Your task to perform on an android device: Open Google Chrome and open the bookmarks view Image 0: 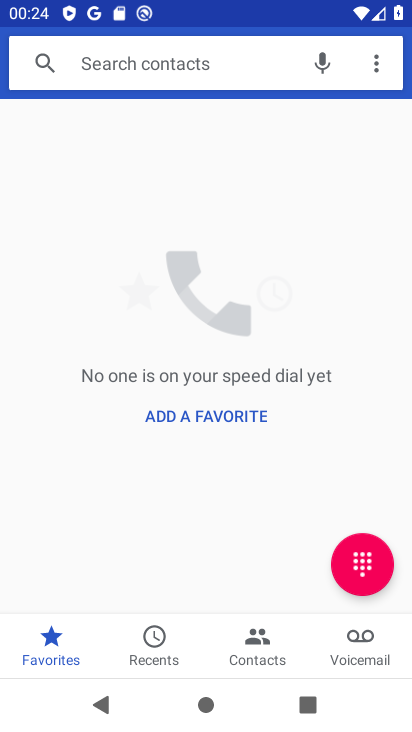
Step 0: press home button
Your task to perform on an android device: Open Google Chrome and open the bookmarks view Image 1: 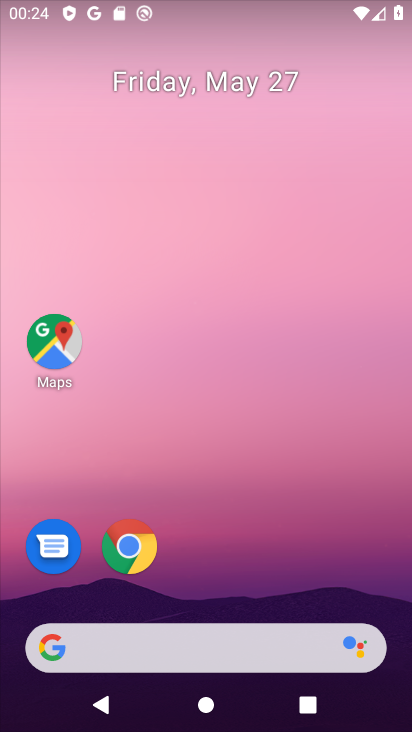
Step 1: drag from (301, 577) to (266, 135)
Your task to perform on an android device: Open Google Chrome and open the bookmarks view Image 2: 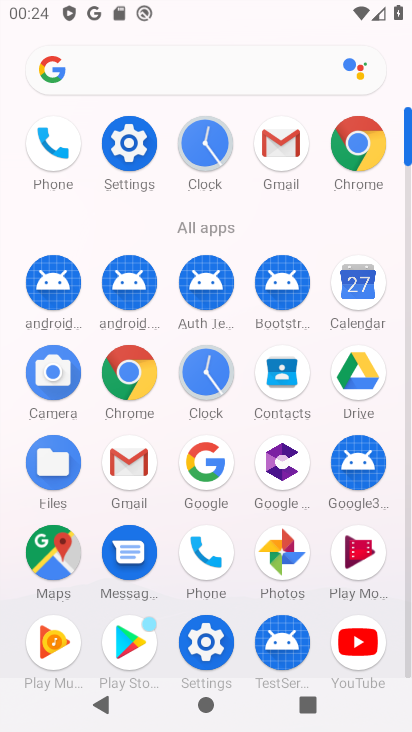
Step 2: click (131, 374)
Your task to perform on an android device: Open Google Chrome and open the bookmarks view Image 3: 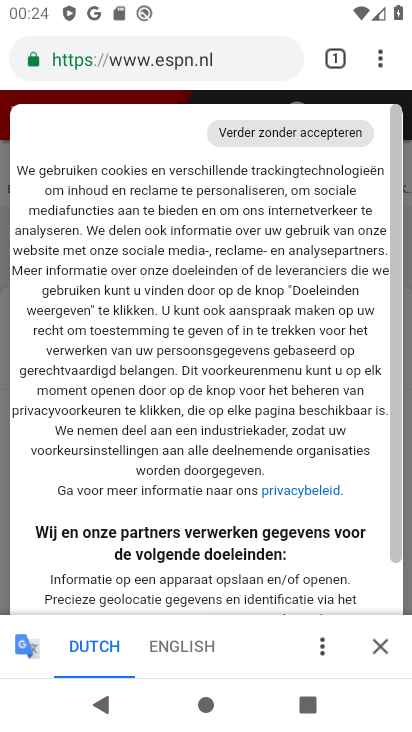
Step 3: task complete